Your task to perform on an android device: find photos in the google photos app Image 0: 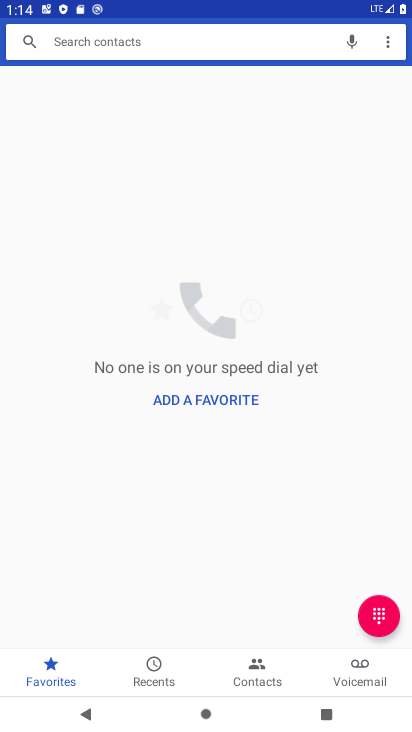
Step 0: press home button
Your task to perform on an android device: find photos in the google photos app Image 1: 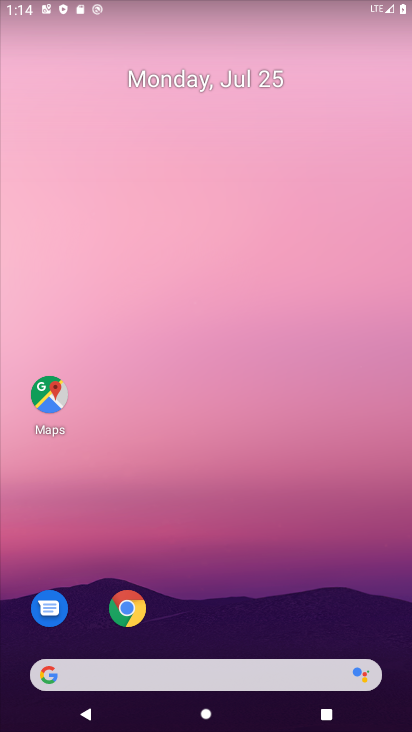
Step 1: drag from (252, 620) to (91, 42)
Your task to perform on an android device: find photos in the google photos app Image 2: 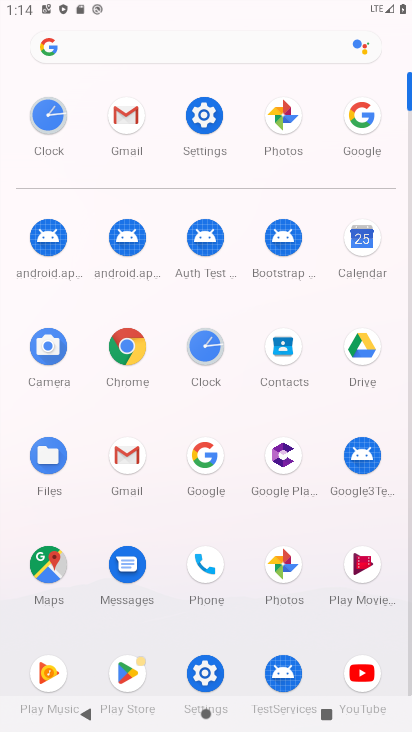
Step 2: click (267, 142)
Your task to perform on an android device: find photos in the google photos app Image 3: 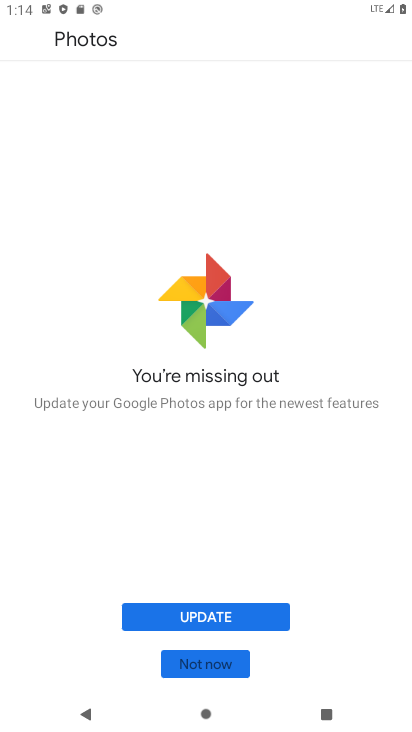
Step 3: click (208, 658)
Your task to perform on an android device: find photos in the google photos app Image 4: 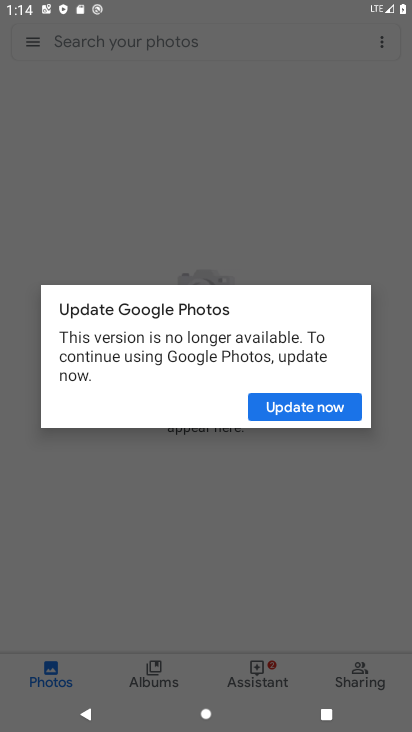
Step 4: click (299, 405)
Your task to perform on an android device: find photos in the google photos app Image 5: 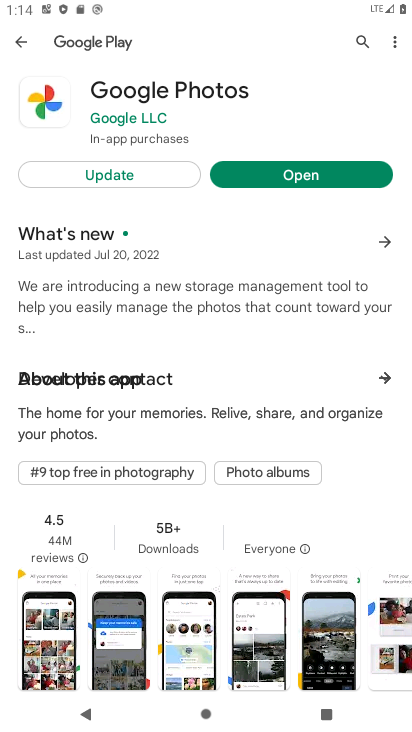
Step 5: click (306, 177)
Your task to perform on an android device: find photos in the google photos app Image 6: 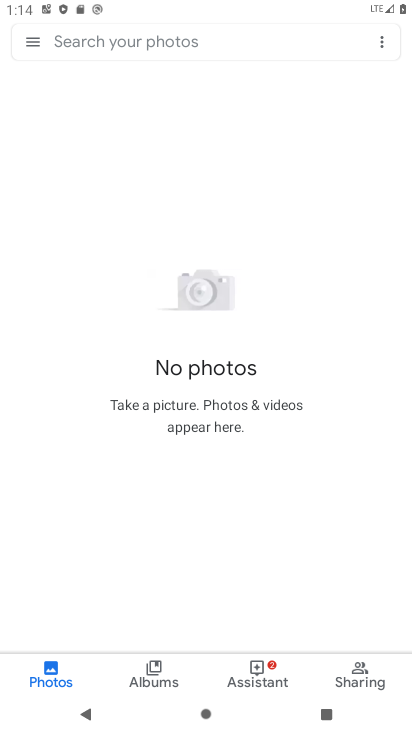
Step 6: task complete